Your task to perform on an android device: open wifi settings Image 0: 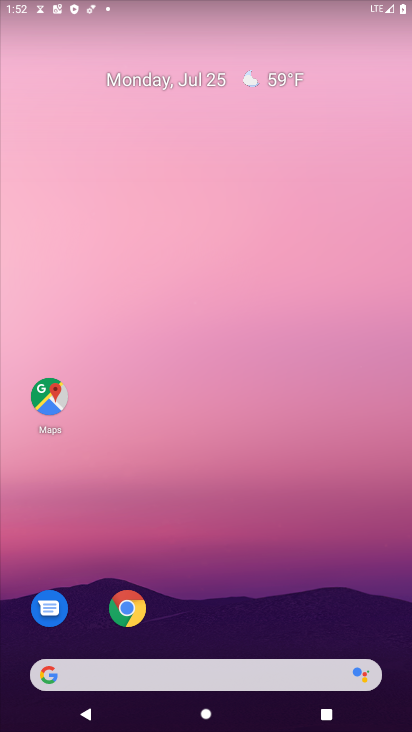
Step 0: drag from (227, 553) to (215, 155)
Your task to perform on an android device: open wifi settings Image 1: 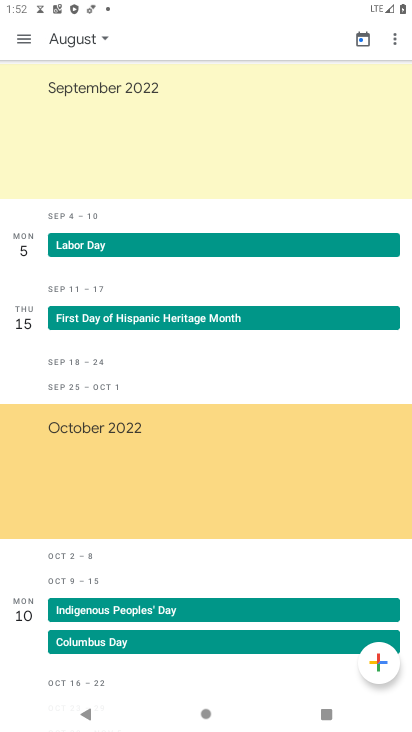
Step 1: press home button
Your task to perform on an android device: open wifi settings Image 2: 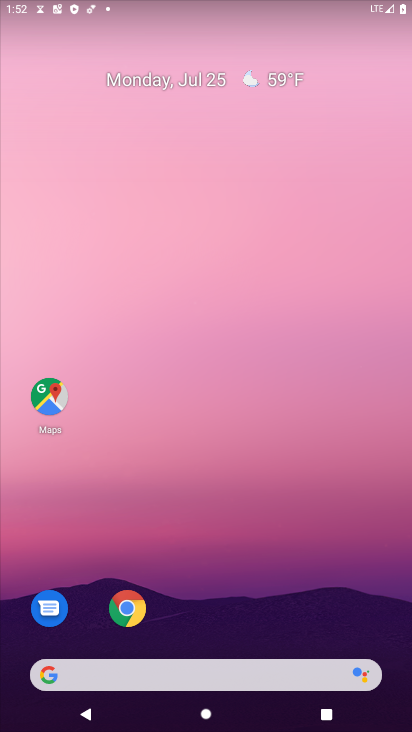
Step 2: drag from (269, 489) to (226, 67)
Your task to perform on an android device: open wifi settings Image 3: 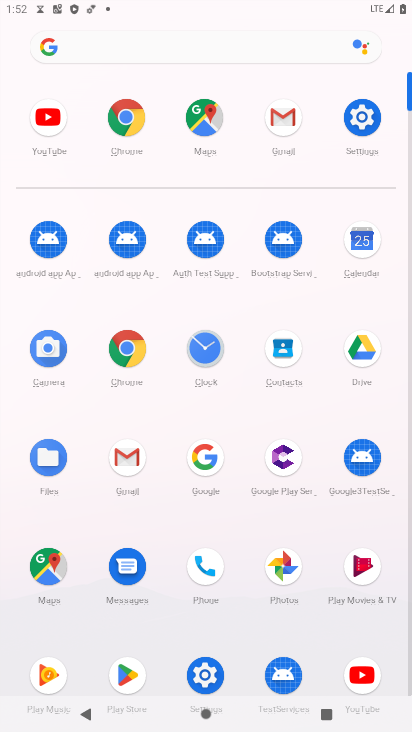
Step 3: click (346, 116)
Your task to perform on an android device: open wifi settings Image 4: 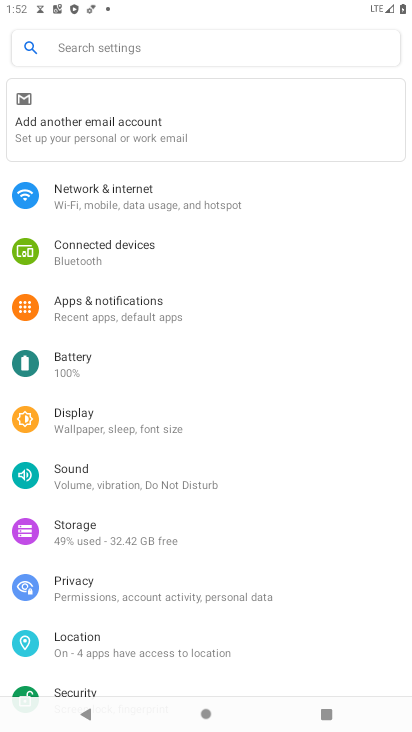
Step 4: click (145, 198)
Your task to perform on an android device: open wifi settings Image 5: 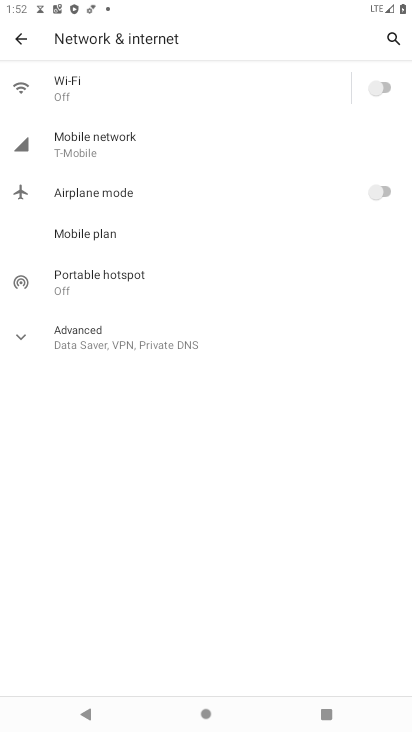
Step 5: click (178, 91)
Your task to perform on an android device: open wifi settings Image 6: 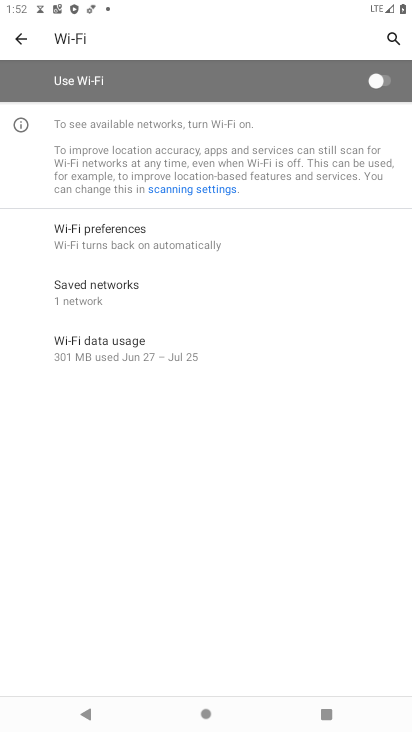
Step 6: task complete